Your task to perform on an android device: set default search engine in the chrome app Image 0: 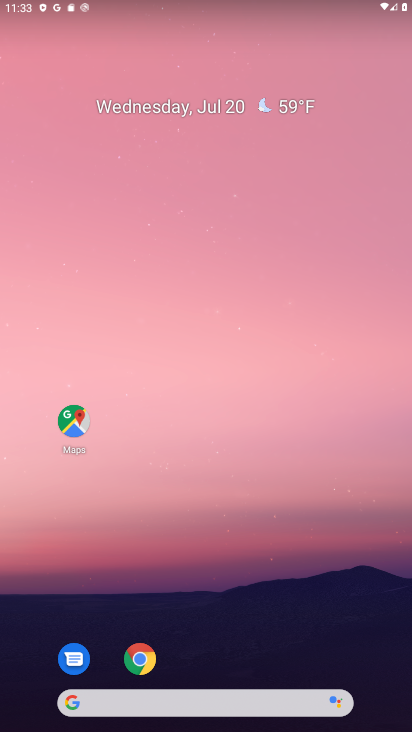
Step 0: click (135, 673)
Your task to perform on an android device: set default search engine in the chrome app Image 1: 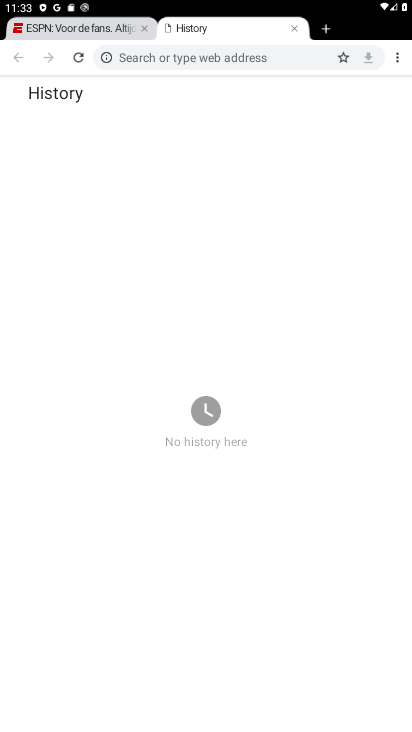
Step 1: click (289, 29)
Your task to perform on an android device: set default search engine in the chrome app Image 2: 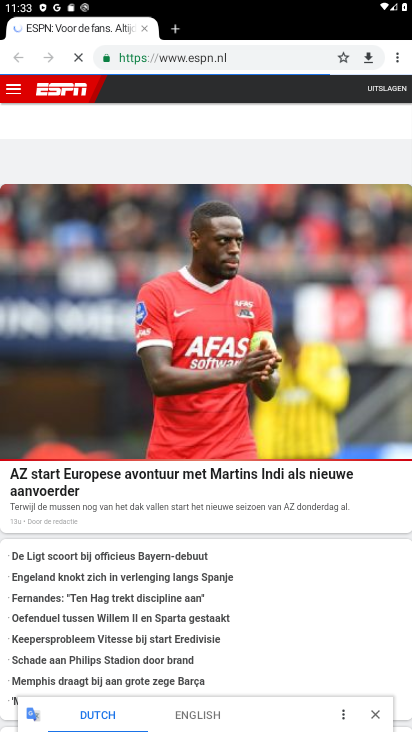
Step 2: click (397, 61)
Your task to perform on an android device: set default search engine in the chrome app Image 3: 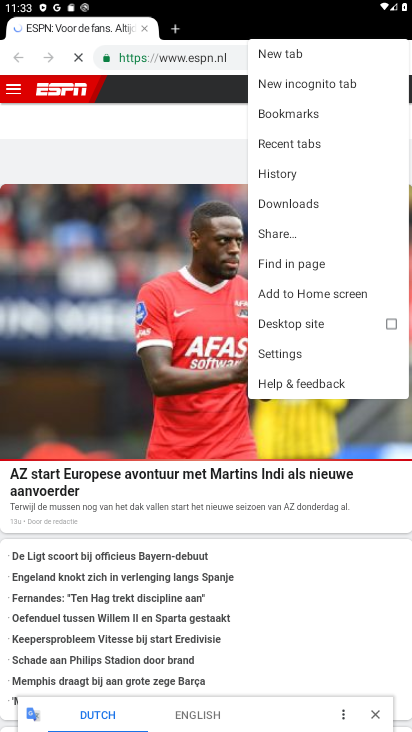
Step 3: click (296, 358)
Your task to perform on an android device: set default search engine in the chrome app Image 4: 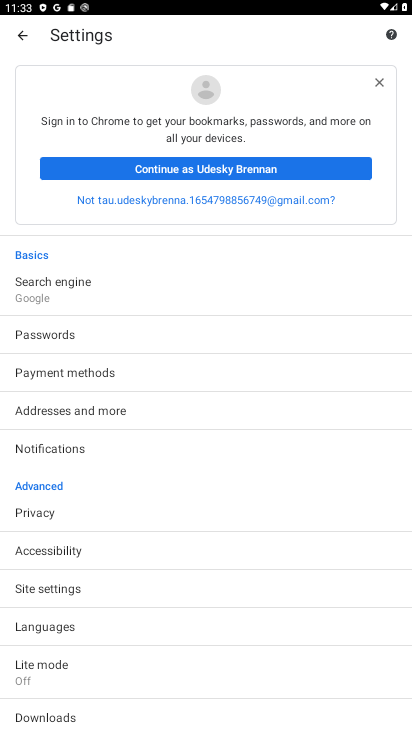
Step 4: click (99, 287)
Your task to perform on an android device: set default search engine in the chrome app Image 5: 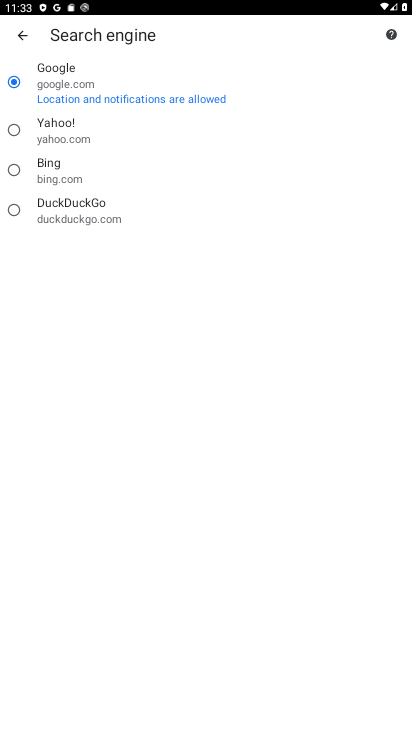
Step 5: click (98, 119)
Your task to perform on an android device: set default search engine in the chrome app Image 6: 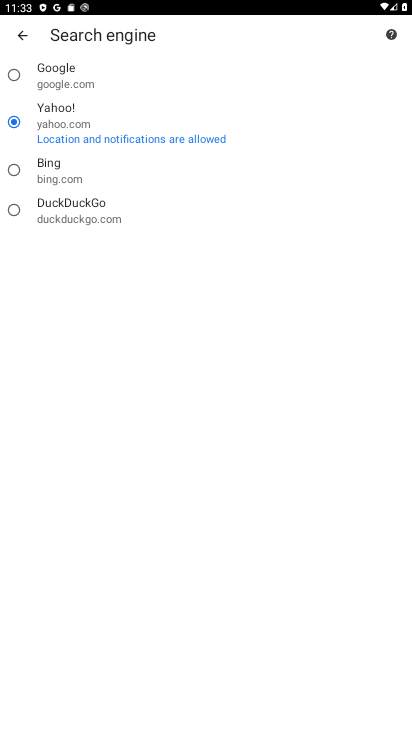
Step 6: task complete